Your task to perform on an android device: check battery use Image 0: 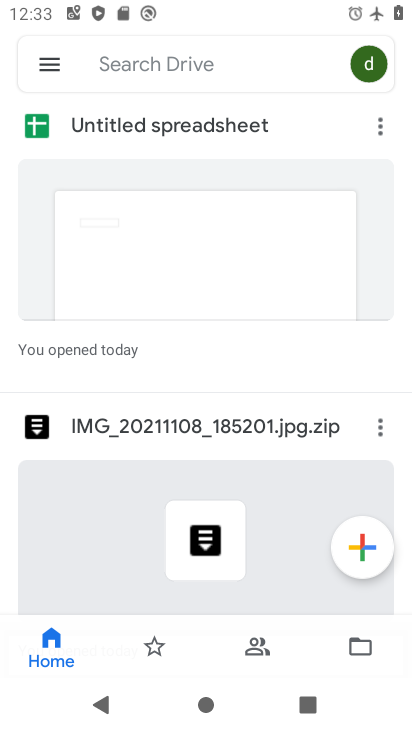
Step 0: press home button
Your task to perform on an android device: check battery use Image 1: 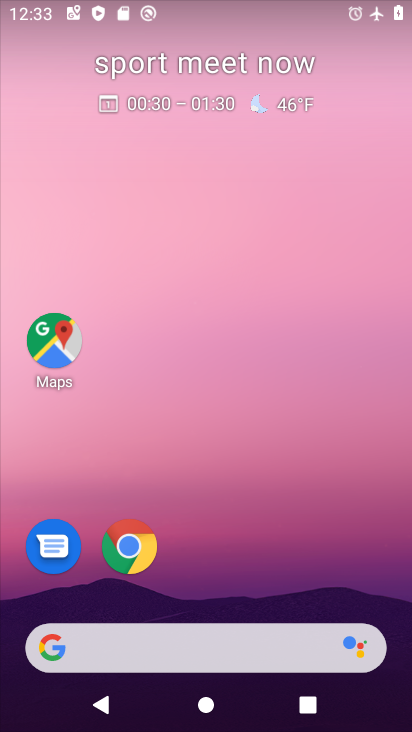
Step 1: drag from (248, 577) to (324, 4)
Your task to perform on an android device: check battery use Image 2: 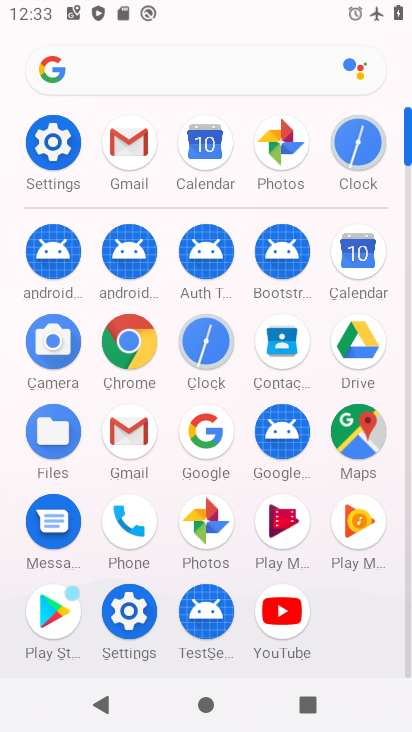
Step 2: click (49, 150)
Your task to perform on an android device: check battery use Image 3: 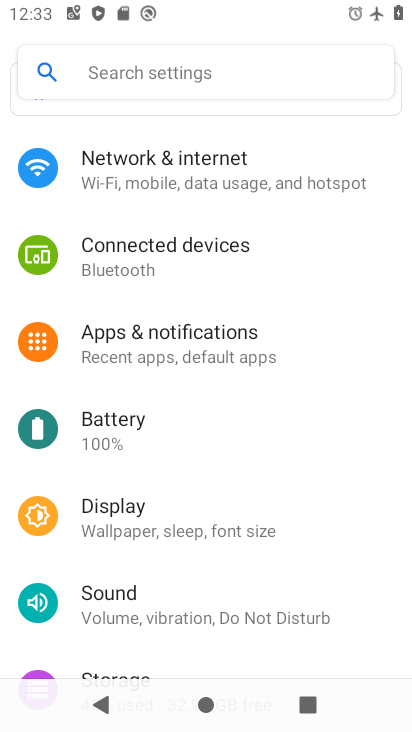
Step 3: click (116, 423)
Your task to perform on an android device: check battery use Image 4: 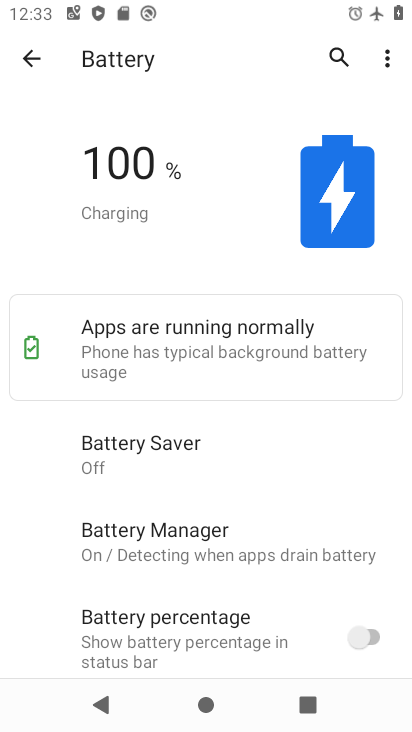
Step 4: click (386, 63)
Your task to perform on an android device: check battery use Image 5: 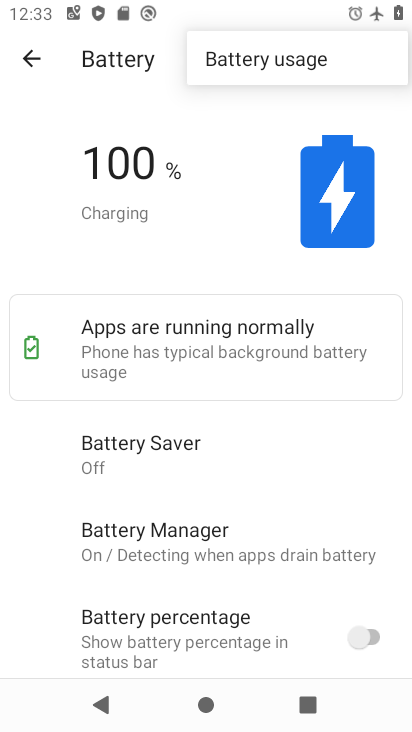
Step 5: click (243, 63)
Your task to perform on an android device: check battery use Image 6: 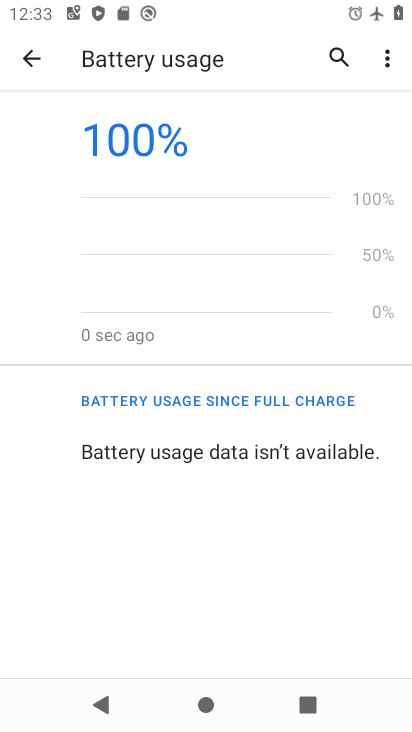
Step 6: task complete